Your task to perform on an android device: Open network settings Image 0: 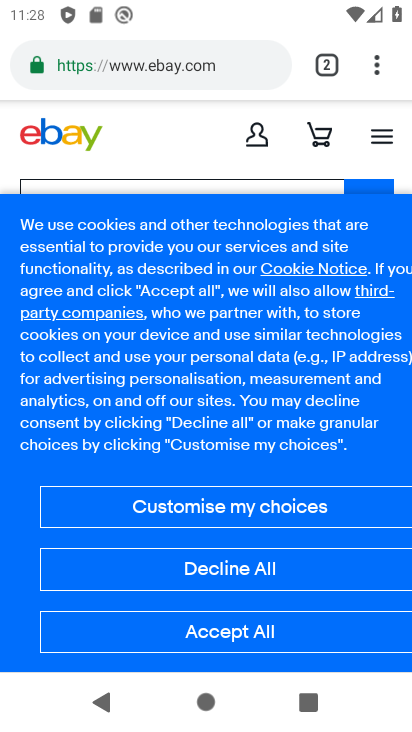
Step 0: press back button
Your task to perform on an android device: Open network settings Image 1: 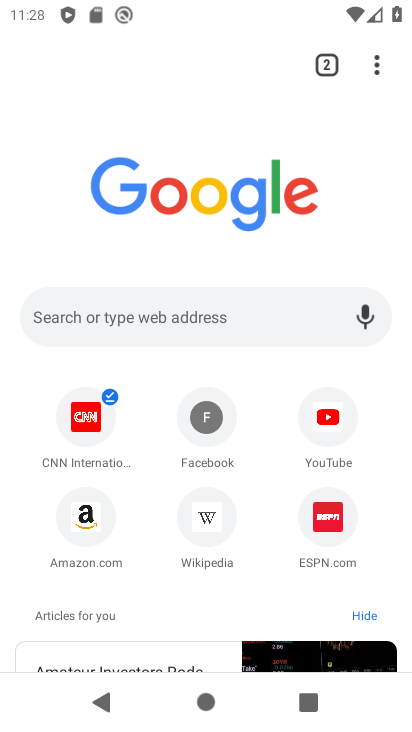
Step 1: press back button
Your task to perform on an android device: Open network settings Image 2: 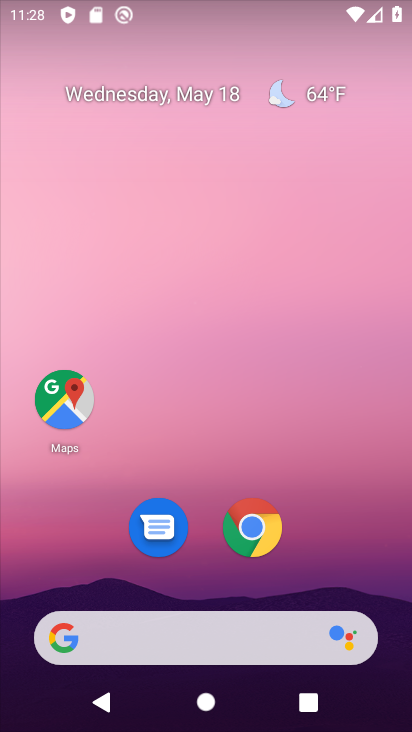
Step 2: drag from (220, 547) to (270, 86)
Your task to perform on an android device: Open network settings Image 3: 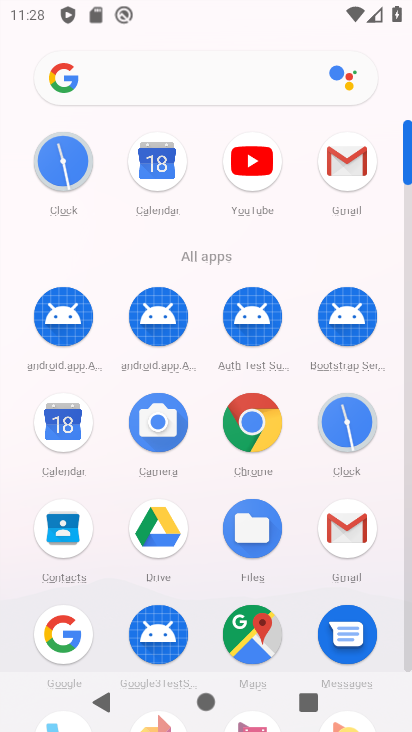
Step 3: drag from (154, 576) to (244, 105)
Your task to perform on an android device: Open network settings Image 4: 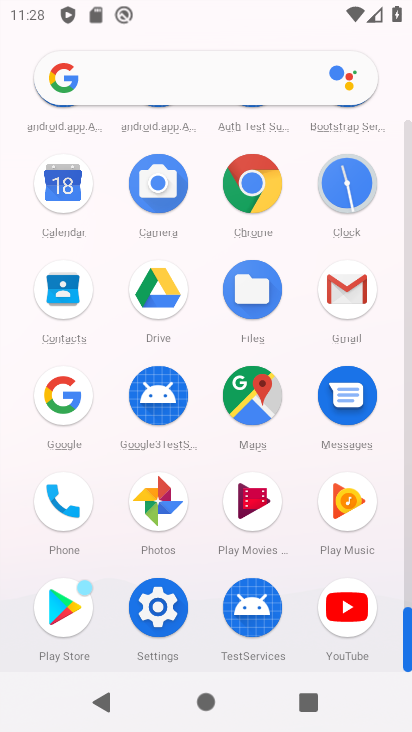
Step 4: click (158, 613)
Your task to perform on an android device: Open network settings Image 5: 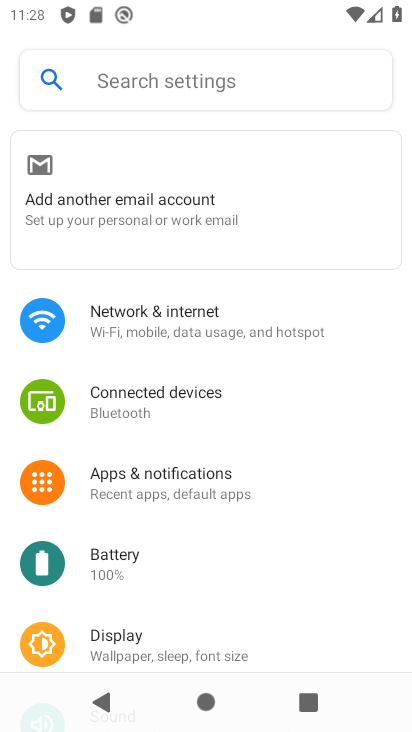
Step 5: click (195, 323)
Your task to perform on an android device: Open network settings Image 6: 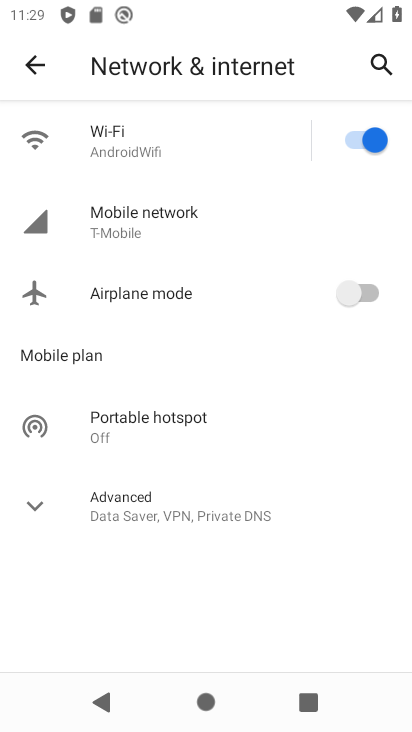
Step 6: task complete